Your task to perform on an android device: Show me popular games on the Play Store Image 0: 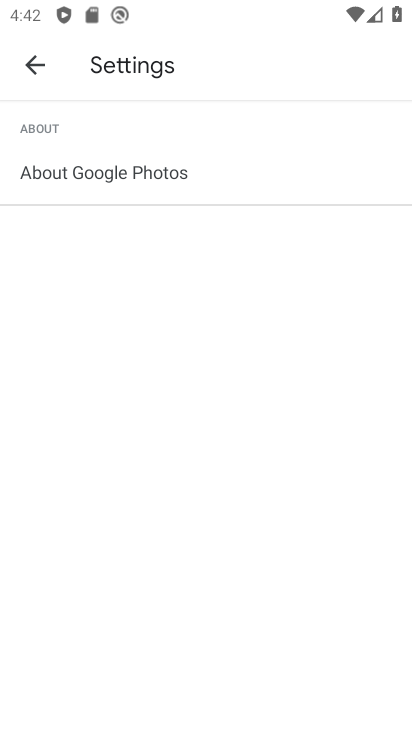
Step 0: press back button
Your task to perform on an android device: Show me popular games on the Play Store Image 1: 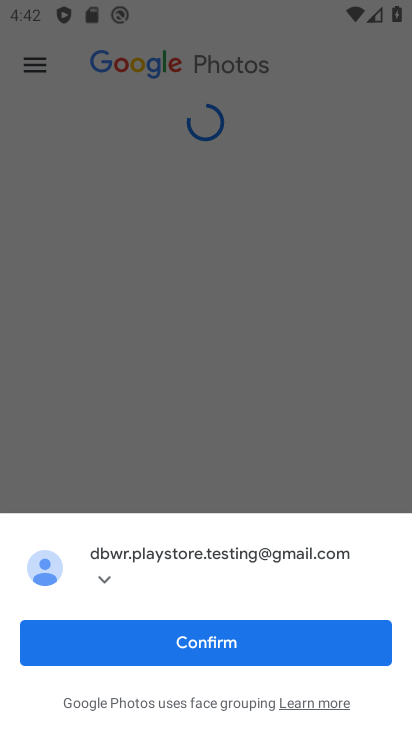
Step 1: press home button
Your task to perform on an android device: Show me popular games on the Play Store Image 2: 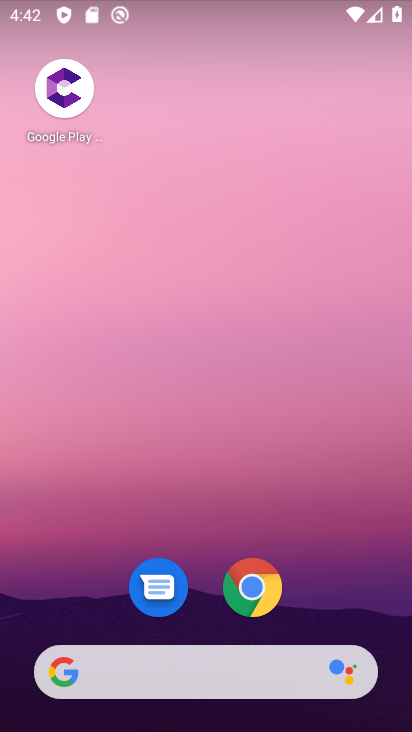
Step 2: drag from (330, 550) to (238, 43)
Your task to perform on an android device: Show me popular games on the Play Store Image 3: 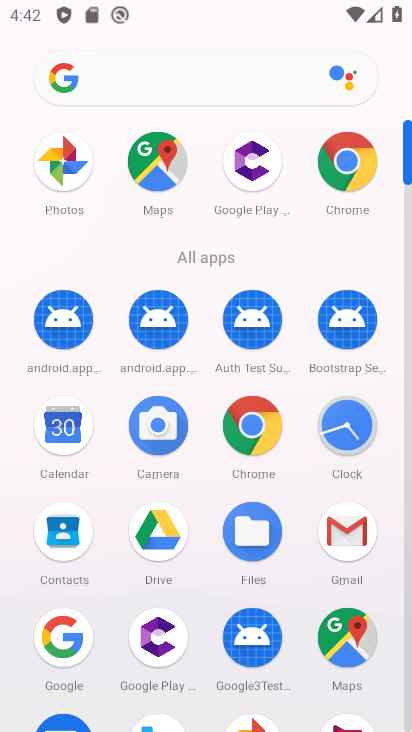
Step 3: drag from (21, 420) to (21, 170)
Your task to perform on an android device: Show me popular games on the Play Store Image 4: 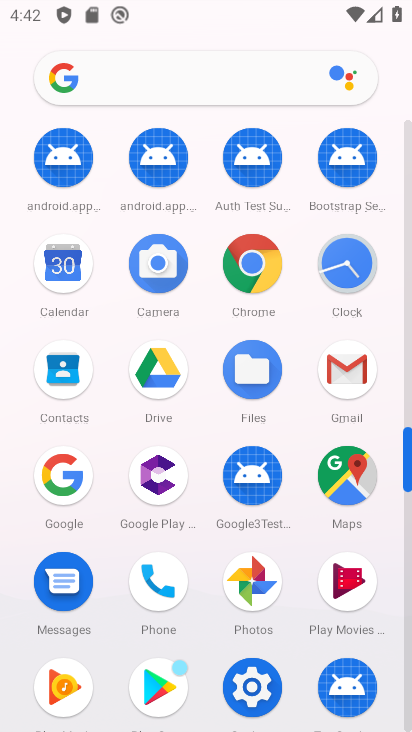
Step 4: click (158, 682)
Your task to perform on an android device: Show me popular games on the Play Store Image 5: 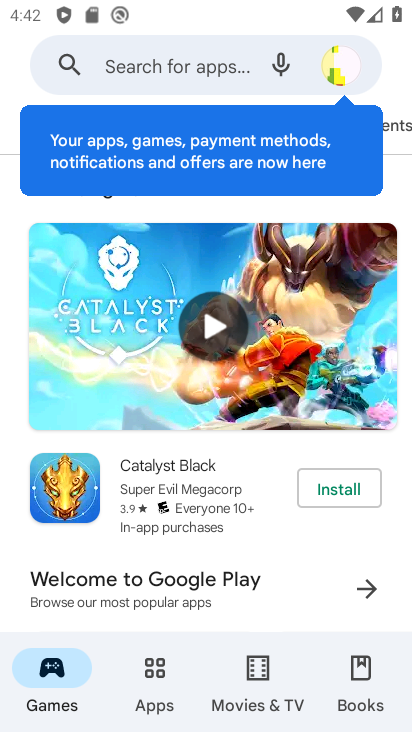
Step 5: click (395, 122)
Your task to perform on an android device: Show me popular games on the Play Store Image 6: 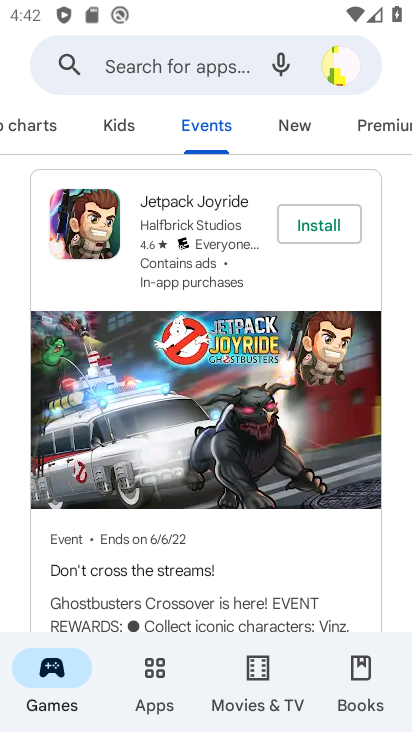
Step 6: drag from (30, 126) to (287, 138)
Your task to perform on an android device: Show me popular games on the Play Store Image 7: 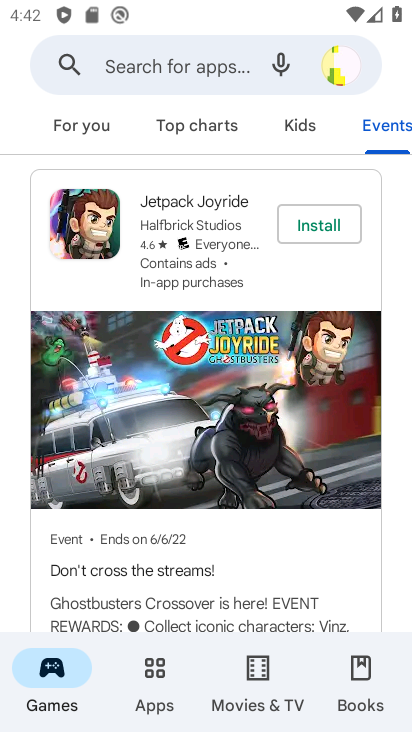
Step 7: drag from (294, 123) to (11, 126)
Your task to perform on an android device: Show me popular games on the Play Store Image 8: 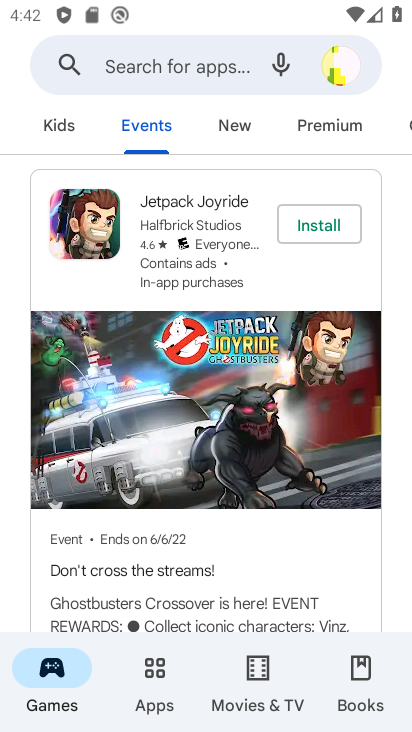
Step 8: drag from (320, 122) to (109, 131)
Your task to perform on an android device: Show me popular games on the Play Store Image 9: 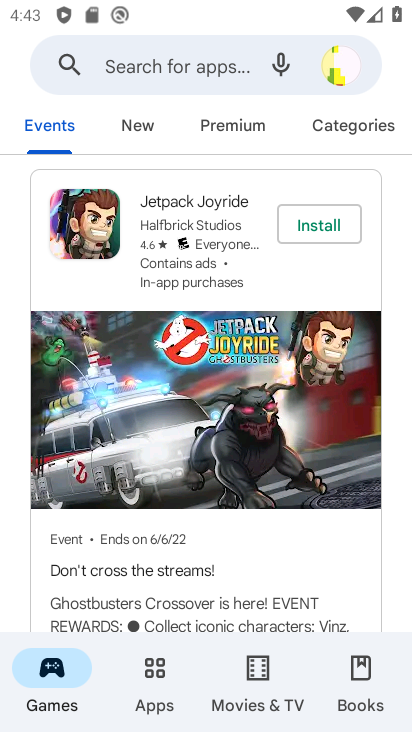
Step 9: click (326, 121)
Your task to perform on an android device: Show me popular games on the Play Store Image 10: 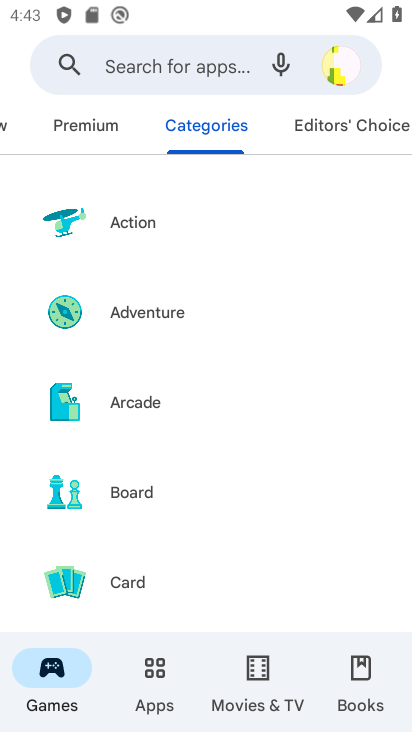
Step 10: drag from (236, 440) to (227, 144)
Your task to perform on an android device: Show me popular games on the Play Store Image 11: 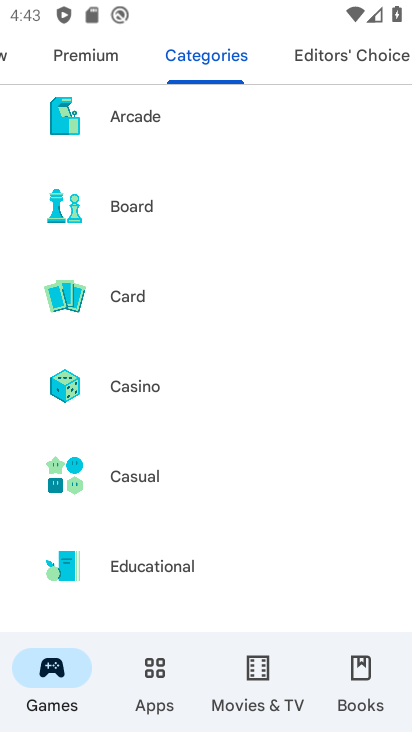
Step 11: drag from (274, 435) to (278, 68)
Your task to perform on an android device: Show me popular games on the Play Store Image 12: 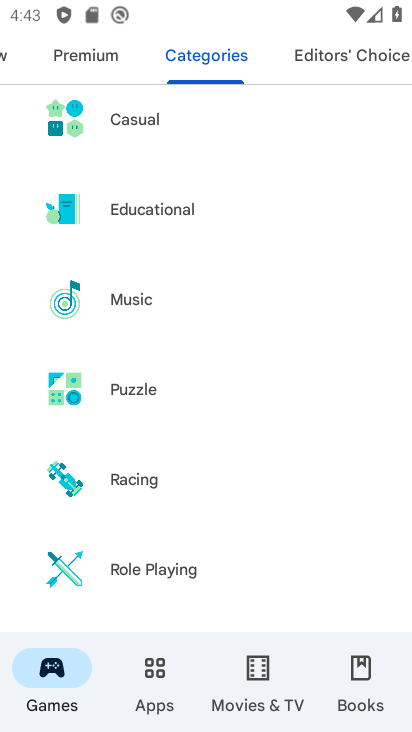
Step 12: drag from (279, 531) to (268, 146)
Your task to perform on an android device: Show me popular games on the Play Store Image 13: 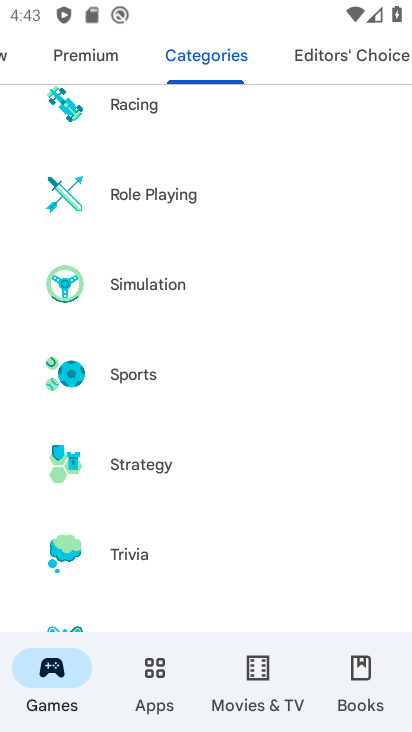
Step 13: drag from (236, 417) to (236, 163)
Your task to perform on an android device: Show me popular games on the Play Store Image 14: 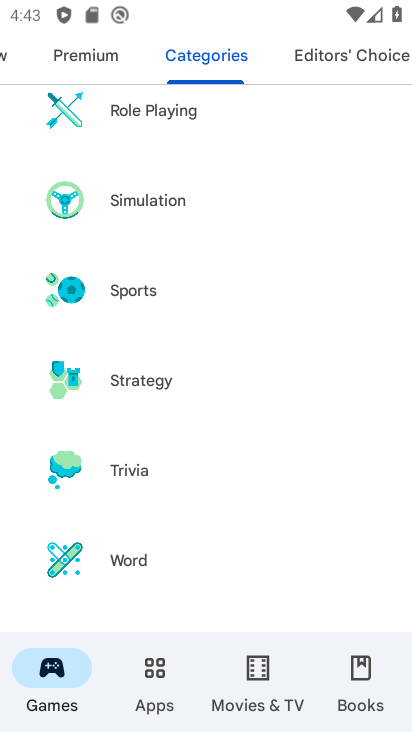
Step 14: drag from (235, 518) to (235, 167)
Your task to perform on an android device: Show me popular games on the Play Store Image 15: 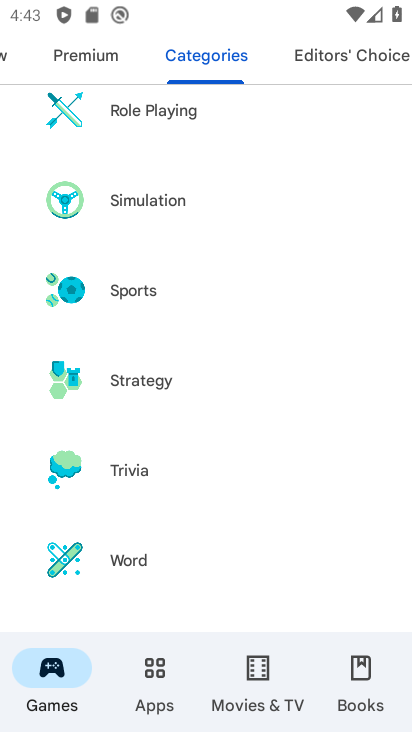
Step 15: click (230, 219)
Your task to perform on an android device: Show me popular games on the Play Store Image 16: 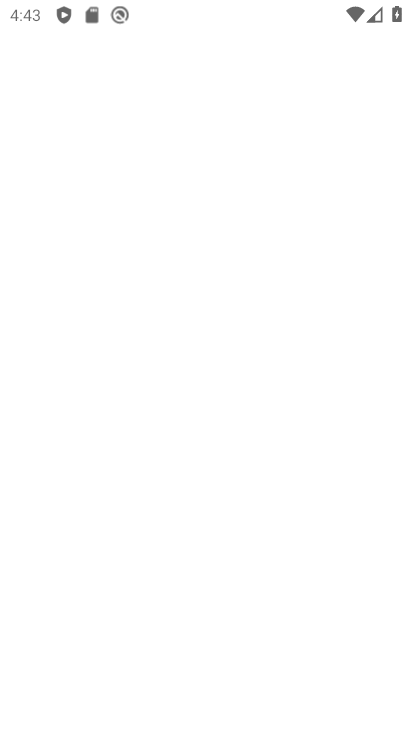
Step 16: click (245, 515)
Your task to perform on an android device: Show me popular games on the Play Store Image 17: 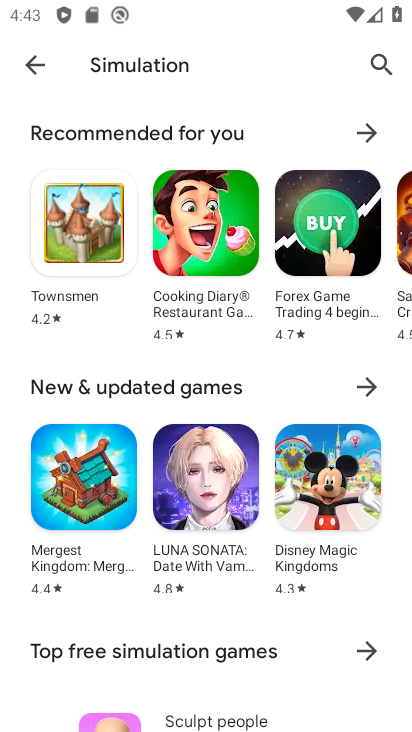
Step 17: drag from (237, 202) to (245, 488)
Your task to perform on an android device: Show me popular games on the Play Store Image 18: 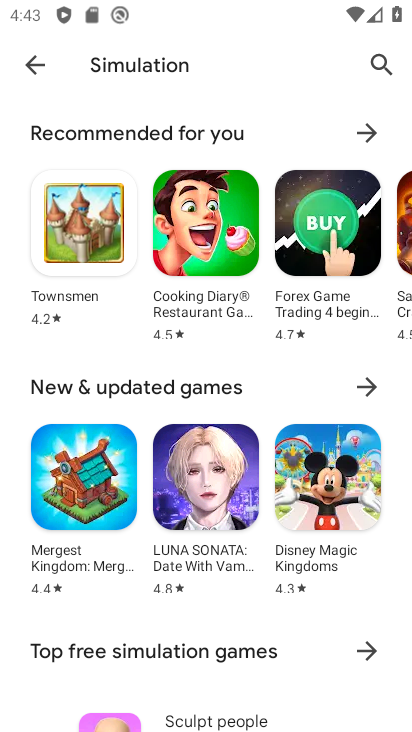
Step 18: drag from (196, 526) to (242, 214)
Your task to perform on an android device: Show me popular games on the Play Store Image 19: 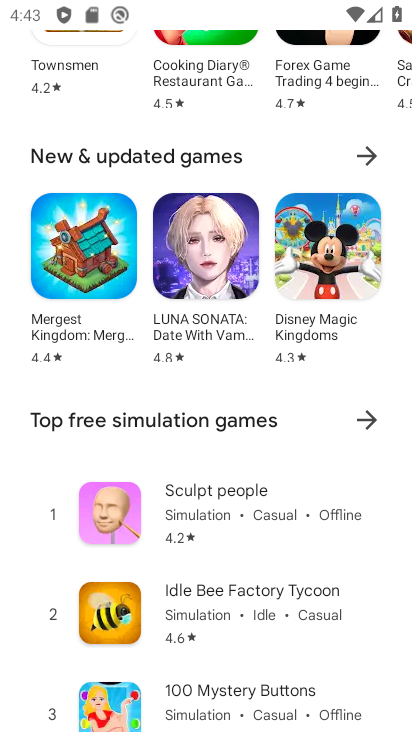
Step 19: press back button
Your task to perform on an android device: Show me popular games on the Play Store Image 20: 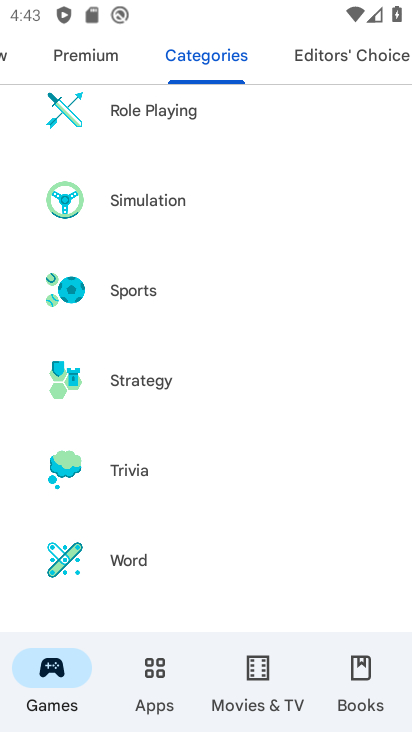
Step 20: drag from (231, 521) to (244, 175)
Your task to perform on an android device: Show me popular games on the Play Store Image 21: 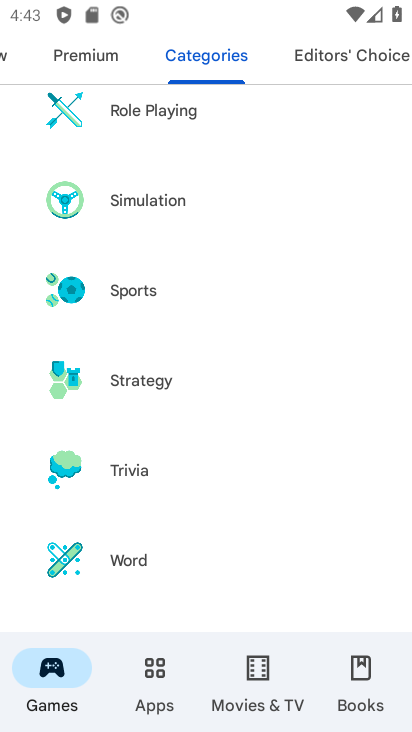
Step 21: drag from (236, 223) to (218, 500)
Your task to perform on an android device: Show me popular games on the Play Store Image 22: 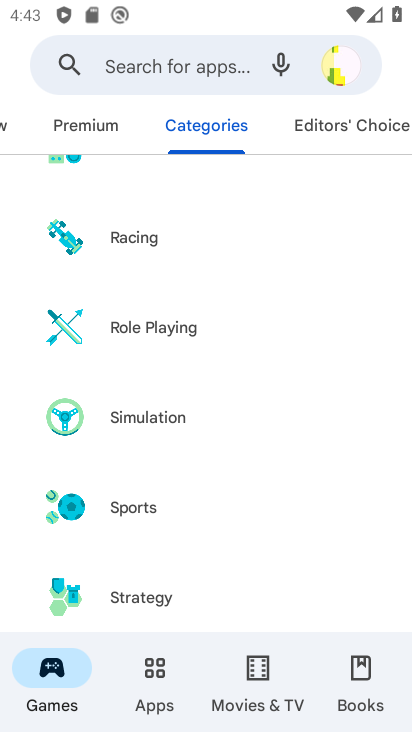
Step 22: drag from (212, 254) to (202, 521)
Your task to perform on an android device: Show me popular games on the Play Store Image 23: 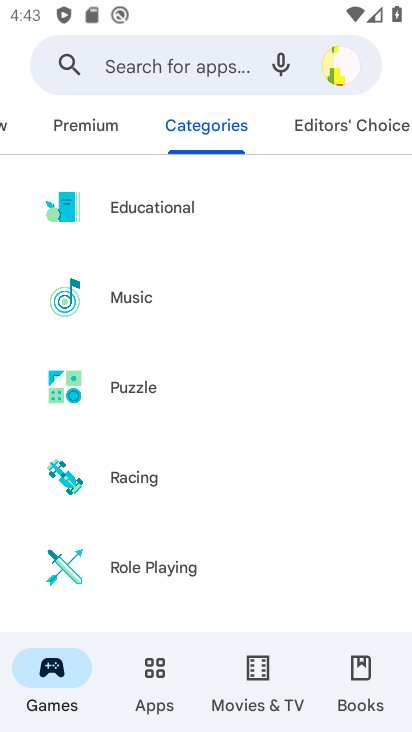
Step 23: drag from (239, 340) to (239, 583)
Your task to perform on an android device: Show me popular games on the Play Store Image 24: 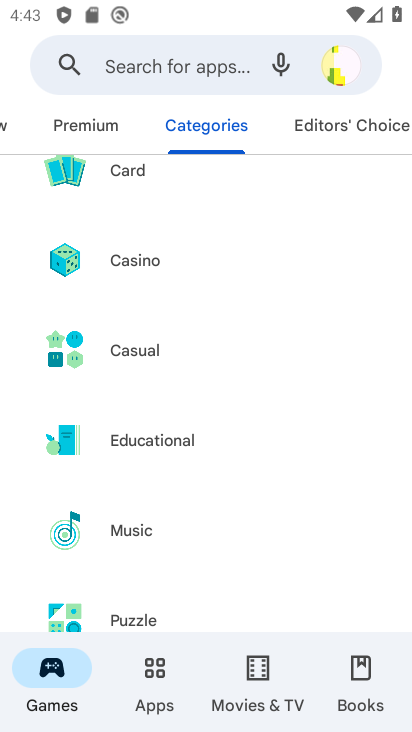
Step 24: drag from (241, 228) to (232, 566)
Your task to perform on an android device: Show me popular games on the Play Store Image 25: 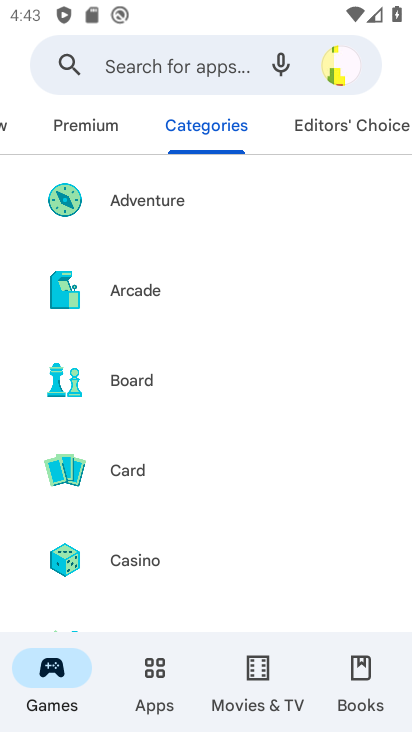
Step 25: drag from (215, 247) to (205, 536)
Your task to perform on an android device: Show me popular games on the Play Store Image 26: 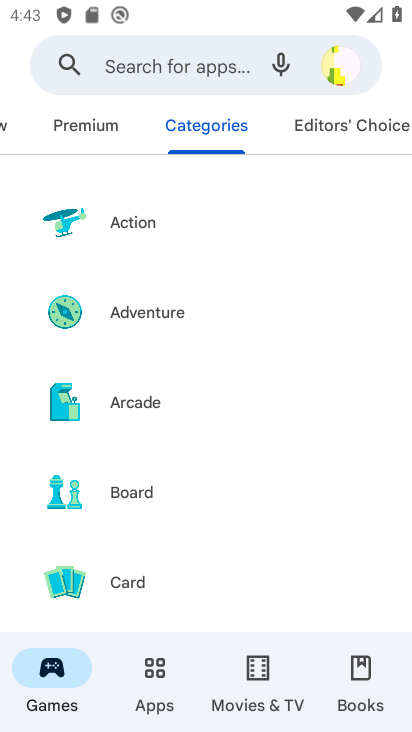
Step 26: drag from (215, 287) to (220, 602)
Your task to perform on an android device: Show me popular games on the Play Store Image 27: 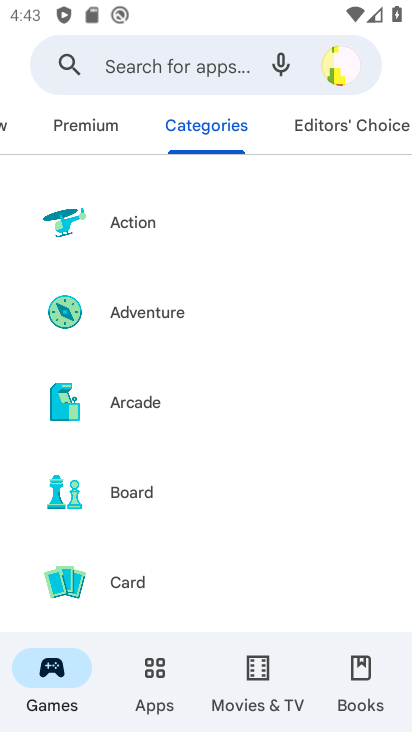
Step 27: drag from (195, 552) to (215, 201)
Your task to perform on an android device: Show me popular games on the Play Store Image 28: 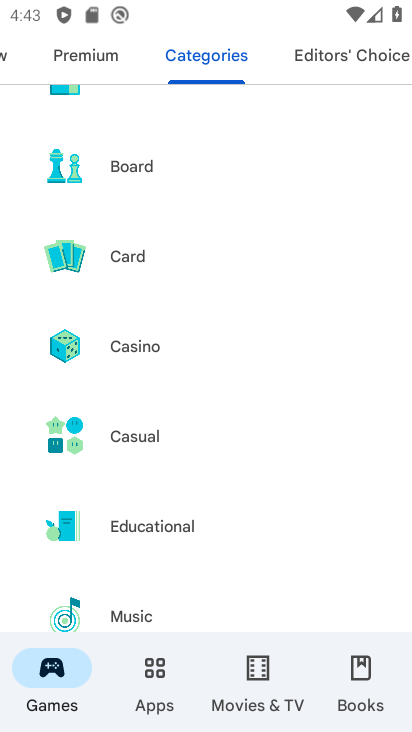
Step 28: drag from (197, 505) to (209, 165)
Your task to perform on an android device: Show me popular games on the Play Store Image 29: 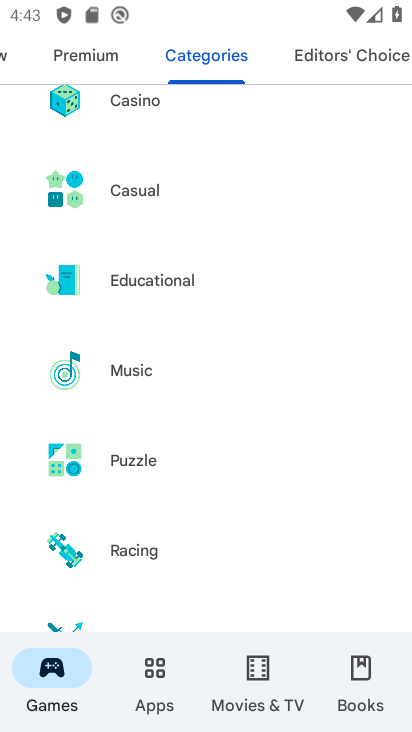
Step 29: drag from (194, 458) to (194, 165)
Your task to perform on an android device: Show me popular games on the Play Store Image 30: 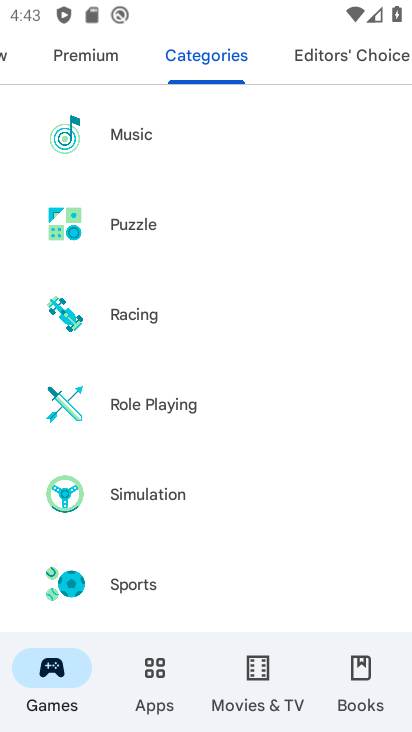
Step 30: drag from (194, 526) to (206, 181)
Your task to perform on an android device: Show me popular games on the Play Store Image 31: 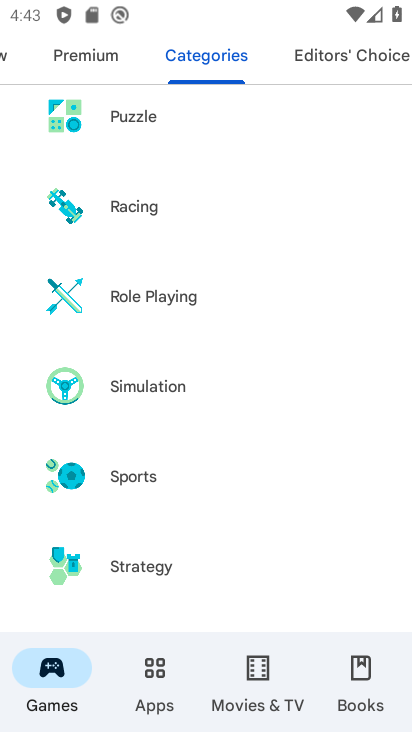
Step 31: drag from (189, 543) to (188, 206)
Your task to perform on an android device: Show me popular games on the Play Store Image 32: 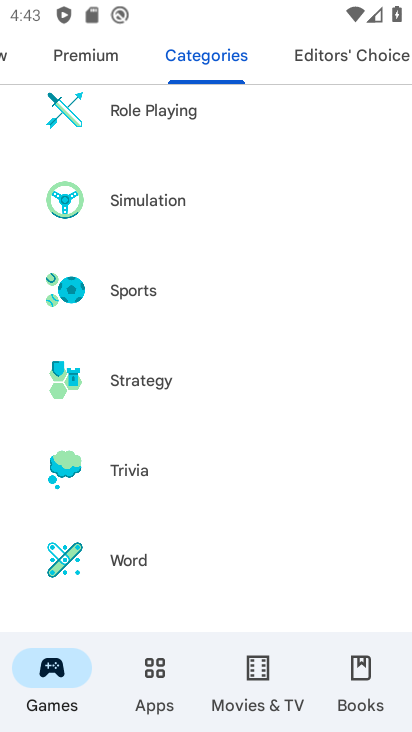
Step 32: drag from (170, 552) to (228, 161)
Your task to perform on an android device: Show me popular games on the Play Store Image 33: 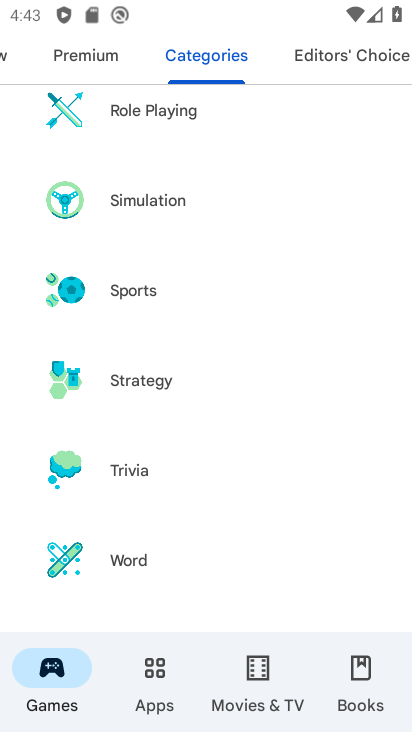
Step 33: drag from (230, 159) to (222, 488)
Your task to perform on an android device: Show me popular games on the Play Store Image 34: 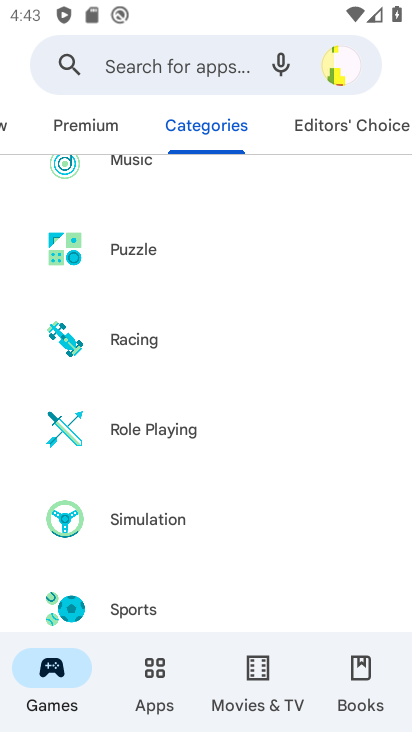
Step 34: drag from (222, 273) to (228, 546)
Your task to perform on an android device: Show me popular games on the Play Store Image 35: 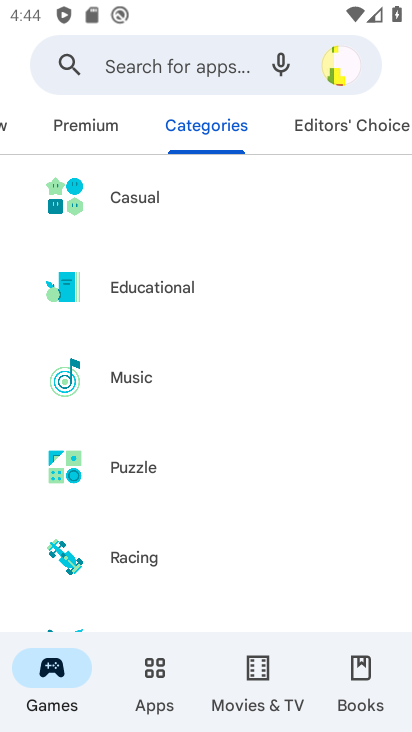
Step 35: click (34, 658)
Your task to perform on an android device: Show me popular games on the Play Store Image 36: 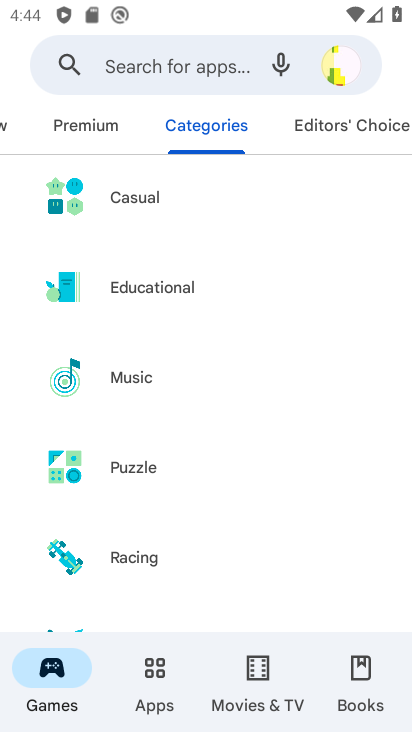
Step 36: drag from (23, 121) to (353, 114)
Your task to perform on an android device: Show me popular games on the Play Store Image 37: 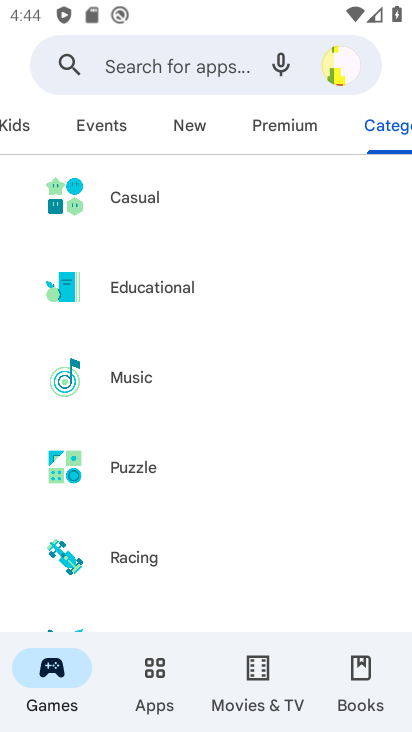
Step 37: drag from (25, 115) to (320, 132)
Your task to perform on an android device: Show me popular games on the Play Store Image 38: 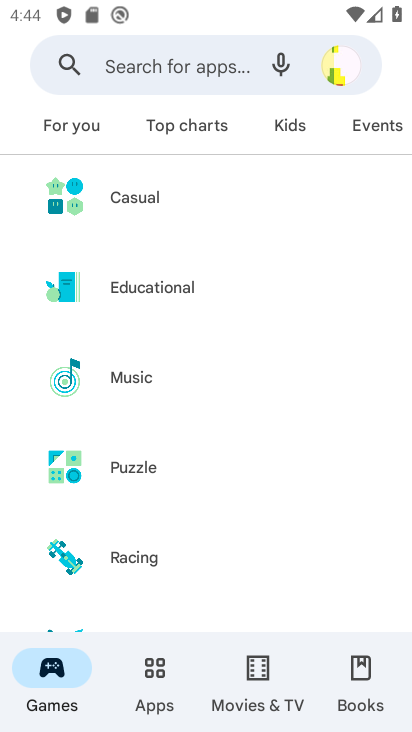
Step 38: drag from (48, 125) to (401, 128)
Your task to perform on an android device: Show me popular games on the Play Store Image 39: 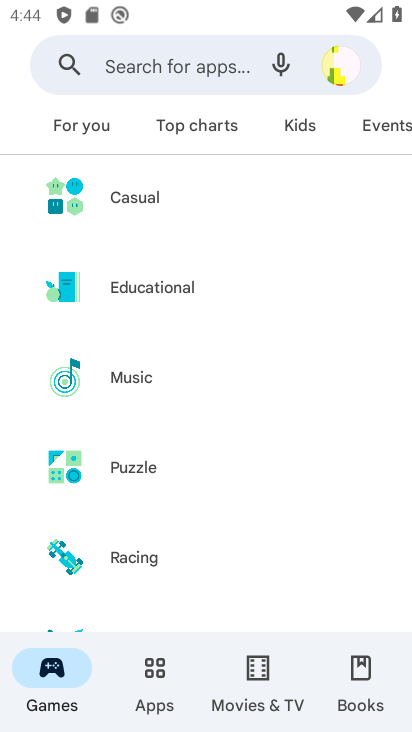
Step 39: click (85, 122)
Your task to perform on an android device: Show me popular games on the Play Store Image 40: 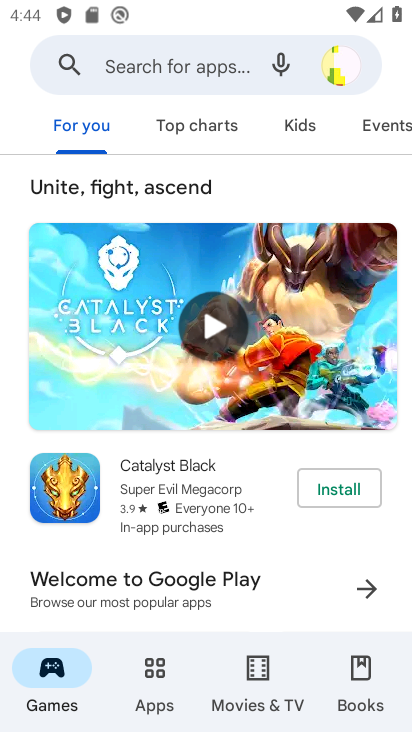
Step 40: task complete